Your task to perform on an android device: toggle notifications settings in the gmail app Image 0: 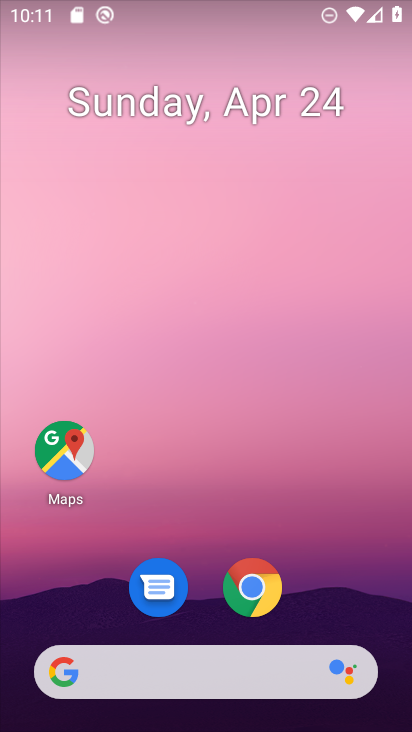
Step 0: drag from (378, 592) to (389, 154)
Your task to perform on an android device: toggle notifications settings in the gmail app Image 1: 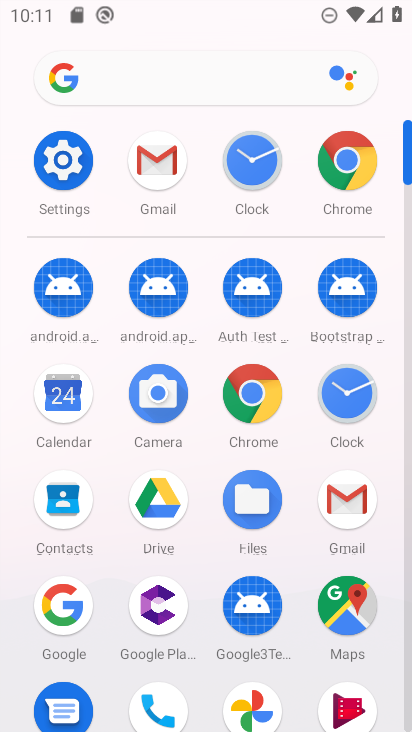
Step 1: click (337, 500)
Your task to perform on an android device: toggle notifications settings in the gmail app Image 2: 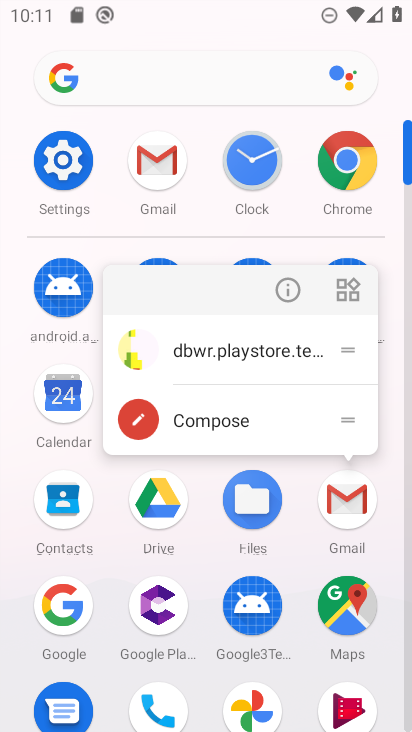
Step 2: click (337, 500)
Your task to perform on an android device: toggle notifications settings in the gmail app Image 3: 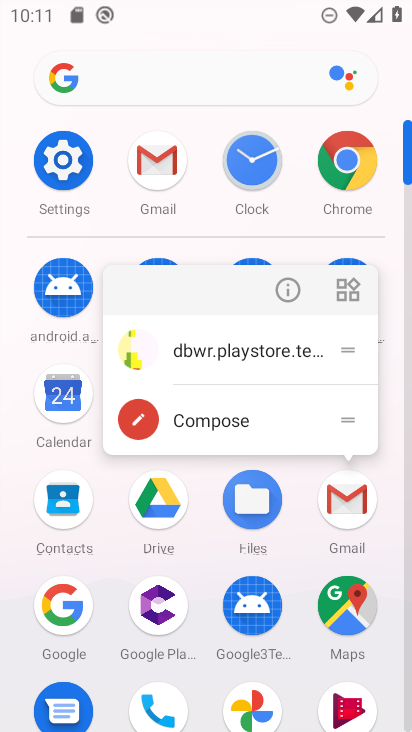
Step 3: click (335, 516)
Your task to perform on an android device: toggle notifications settings in the gmail app Image 4: 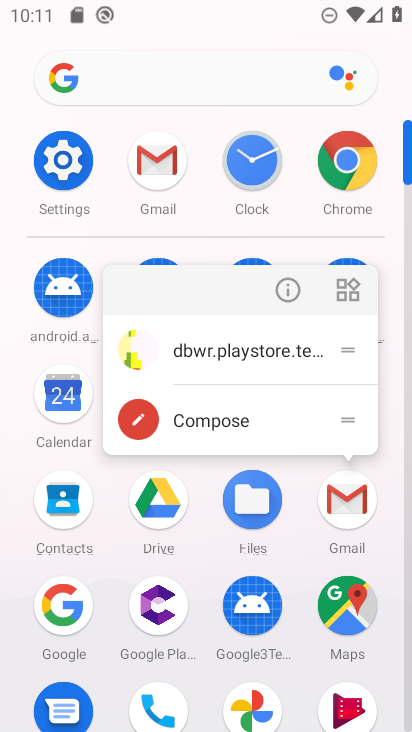
Step 4: click (354, 508)
Your task to perform on an android device: toggle notifications settings in the gmail app Image 5: 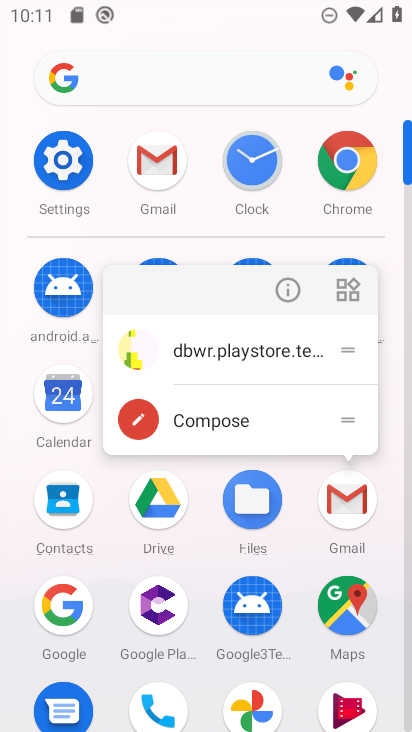
Step 5: click (339, 476)
Your task to perform on an android device: toggle notifications settings in the gmail app Image 6: 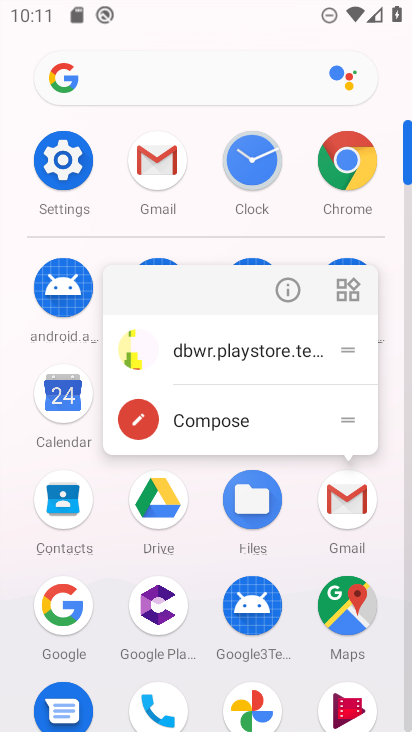
Step 6: click (345, 493)
Your task to perform on an android device: toggle notifications settings in the gmail app Image 7: 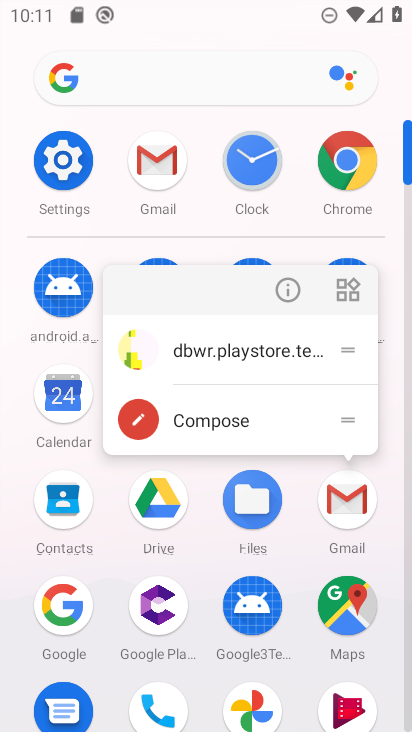
Step 7: click (345, 517)
Your task to perform on an android device: toggle notifications settings in the gmail app Image 8: 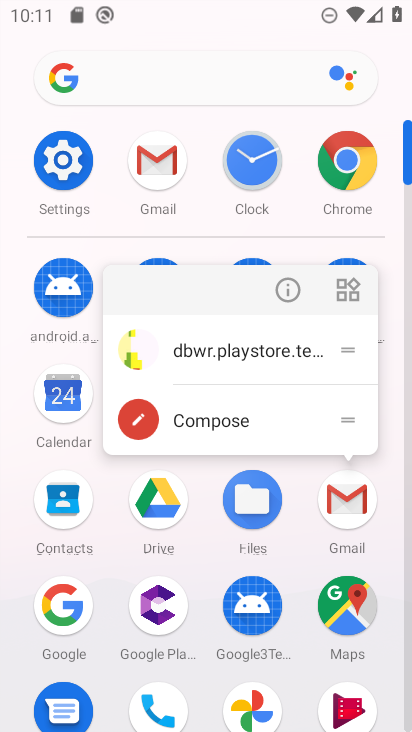
Step 8: click (345, 518)
Your task to perform on an android device: toggle notifications settings in the gmail app Image 9: 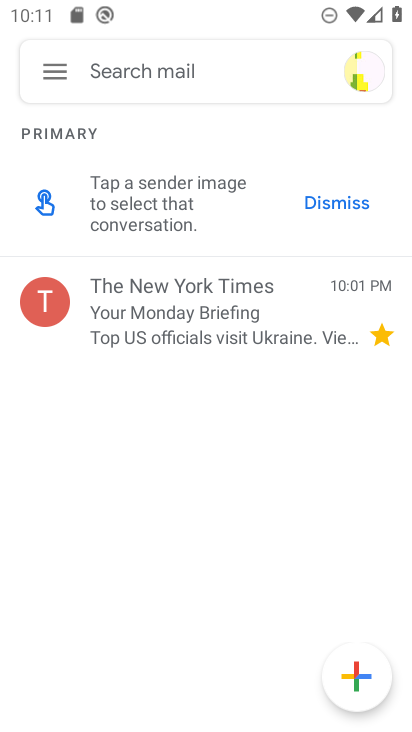
Step 9: click (52, 74)
Your task to perform on an android device: toggle notifications settings in the gmail app Image 10: 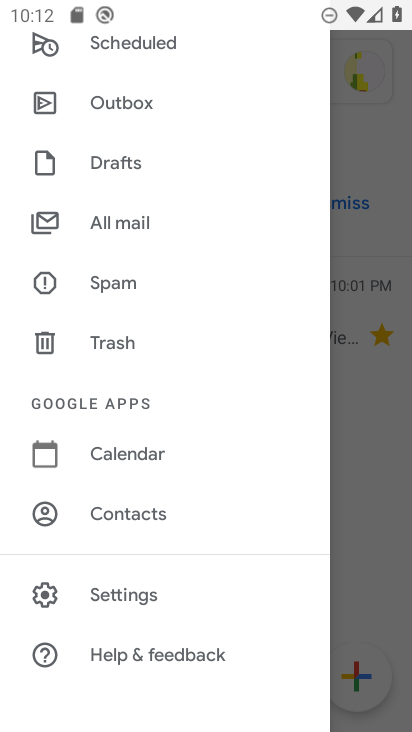
Step 10: click (158, 593)
Your task to perform on an android device: toggle notifications settings in the gmail app Image 11: 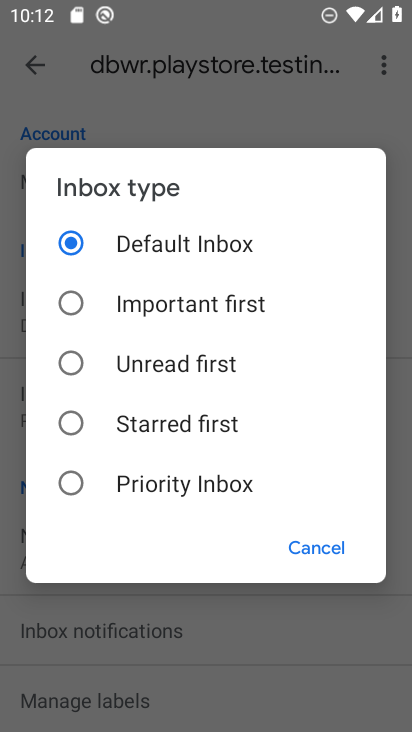
Step 11: click (74, 490)
Your task to perform on an android device: toggle notifications settings in the gmail app Image 12: 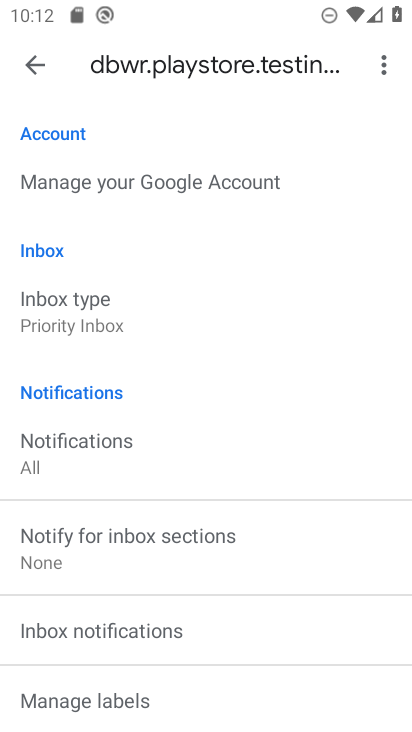
Step 12: task complete